Your task to perform on an android device: turn off picture-in-picture Image 0: 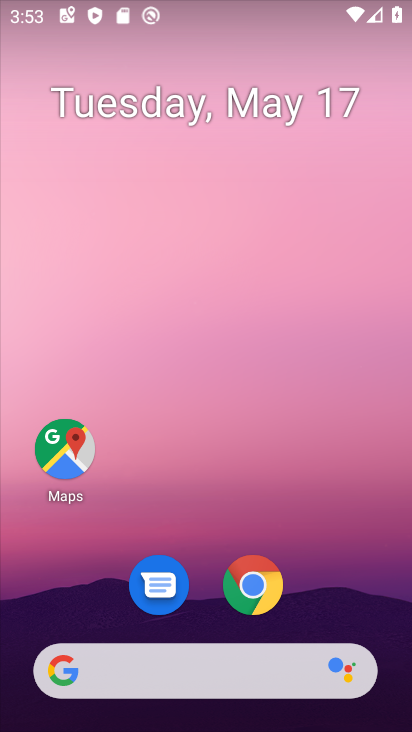
Step 0: click (261, 588)
Your task to perform on an android device: turn off picture-in-picture Image 1: 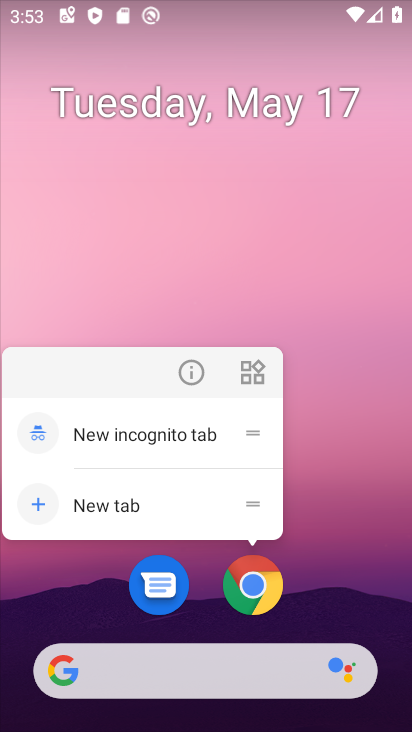
Step 1: click (192, 365)
Your task to perform on an android device: turn off picture-in-picture Image 2: 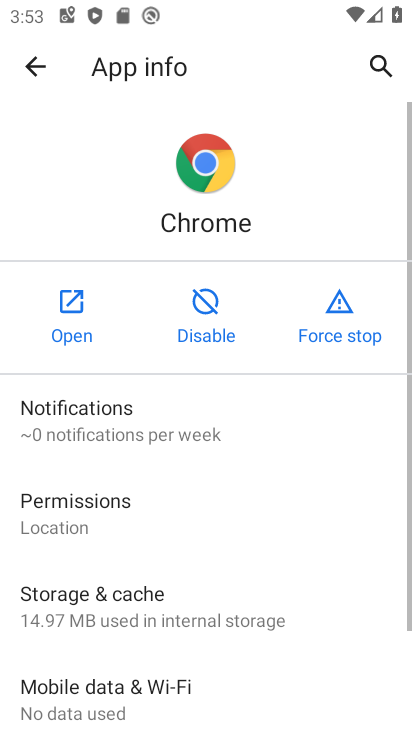
Step 2: drag from (235, 527) to (266, 157)
Your task to perform on an android device: turn off picture-in-picture Image 3: 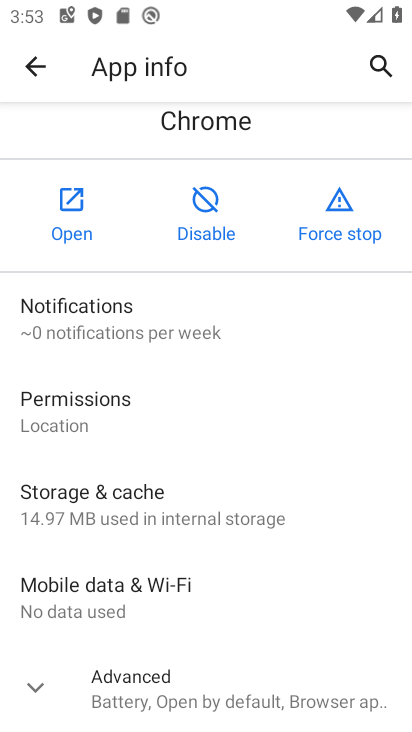
Step 3: click (37, 674)
Your task to perform on an android device: turn off picture-in-picture Image 4: 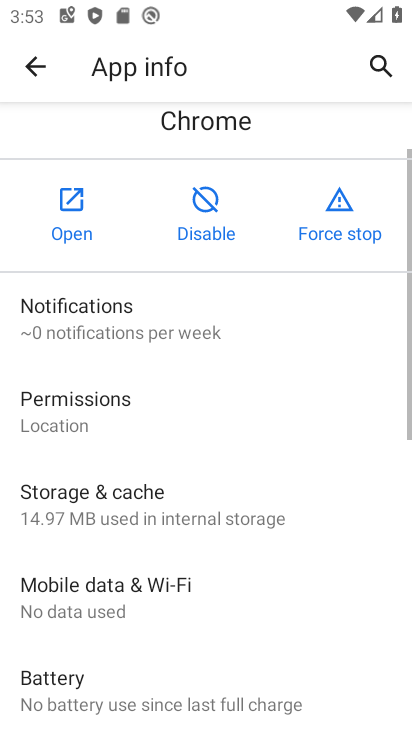
Step 4: drag from (226, 659) to (257, 82)
Your task to perform on an android device: turn off picture-in-picture Image 5: 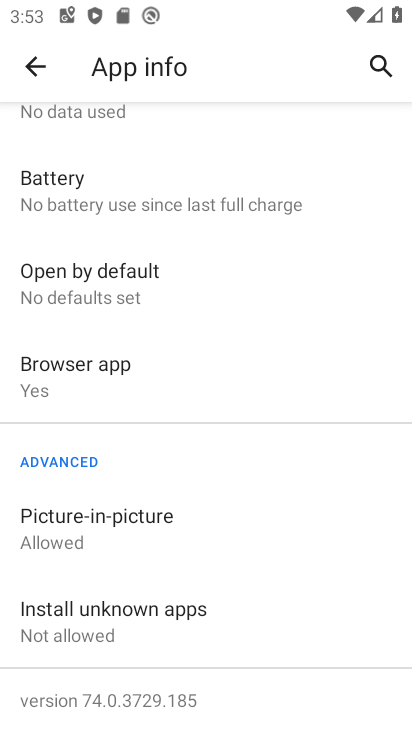
Step 5: click (164, 523)
Your task to perform on an android device: turn off picture-in-picture Image 6: 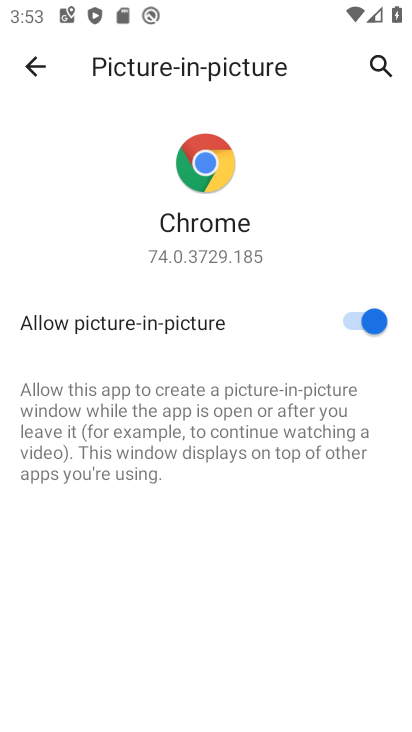
Step 6: click (354, 321)
Your task to perform on an android device: turn off picture-in-picture Image 7: 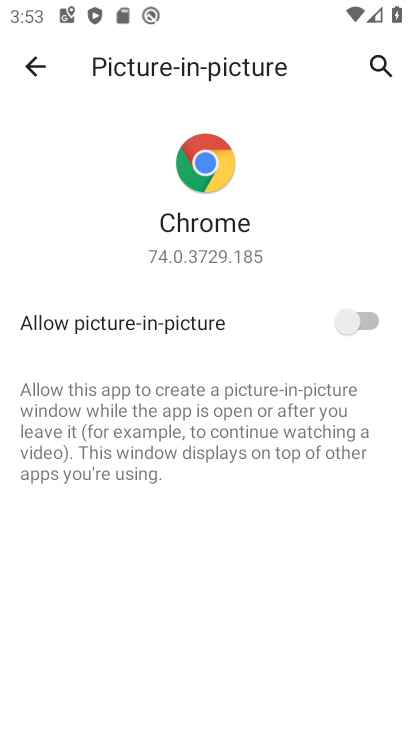
Step 7: task complete